Your task to perform on an android device: Go to Google maps Image 0: 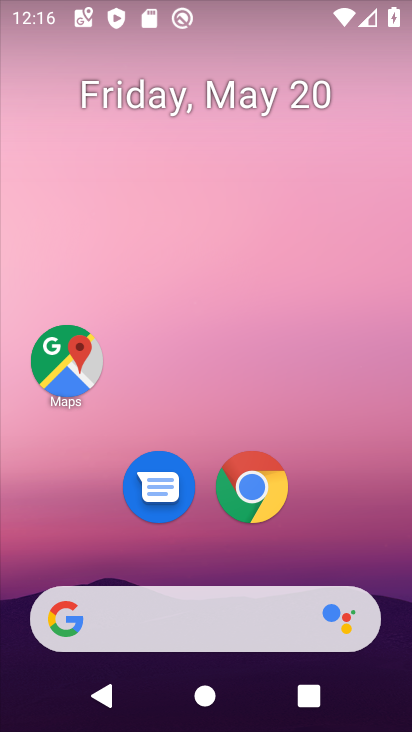
Step 0: click (84, 358)
Your task to perform on an android device: Go to Google maps Image 1: 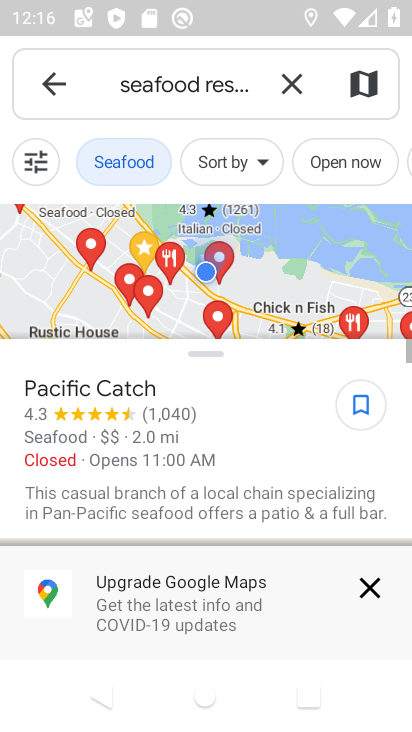
Step 1: task complete